Your task to perform on an android device: delete the emails in spam in the gmail app Image 0: 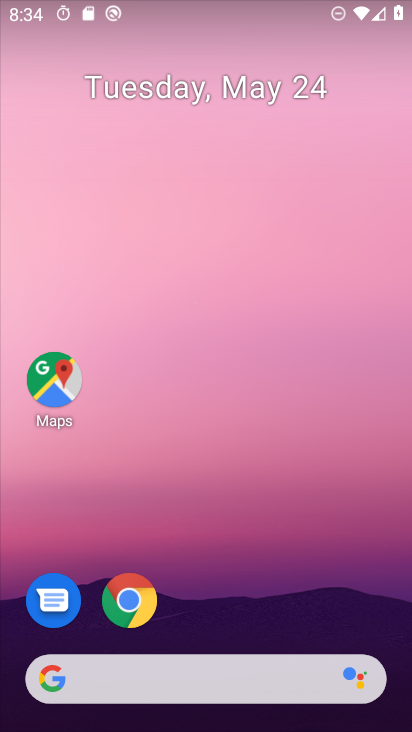
Step 0: drag from (308, 612) to (323, 74)
Your task to perform on an android device: delete the emails in spam in the gmail app Image 1: 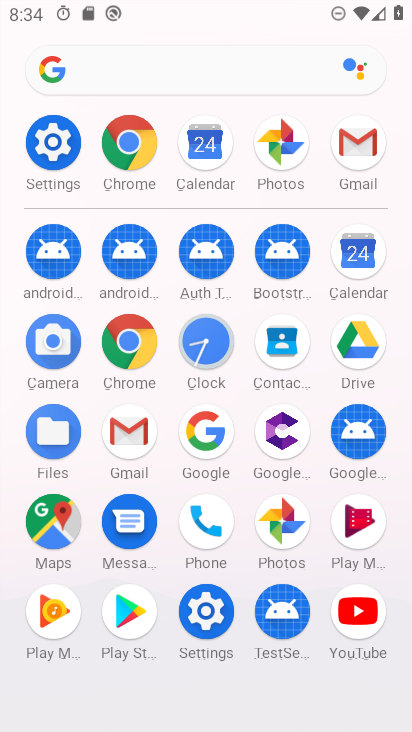
Step 1: click (365, 131)
Your task to perform on an android device: delete the emails in spam in the gmail app Image 2: 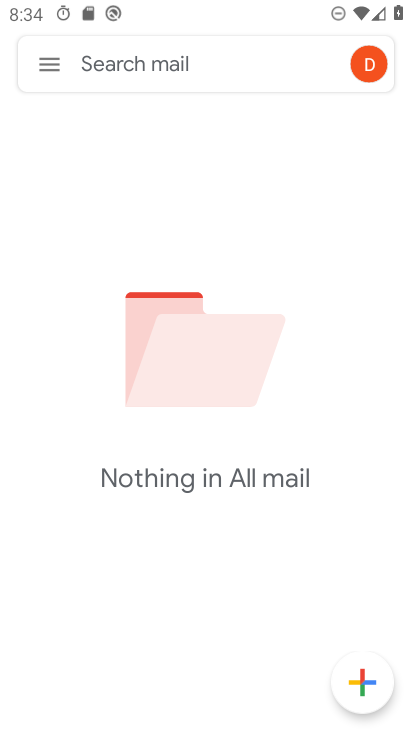
Step 2: click (41, 60)
Your task to perform on an android device: delete the emails in spam in the gmail app Image 3: 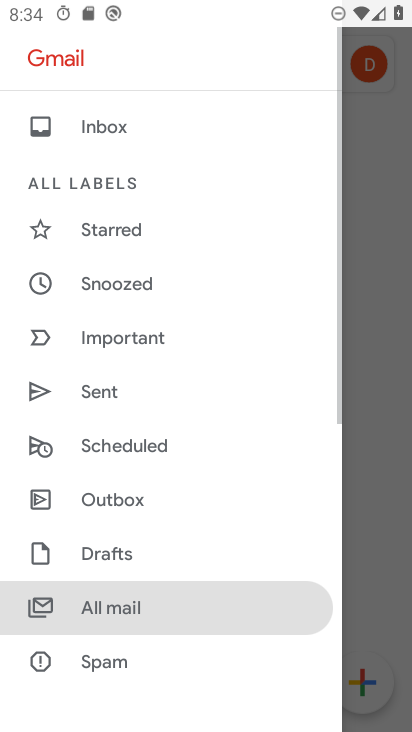
Step 3: click (107, 657)
Your task to perform on an android device: delete the emails in spam in the gmail app Image 4: 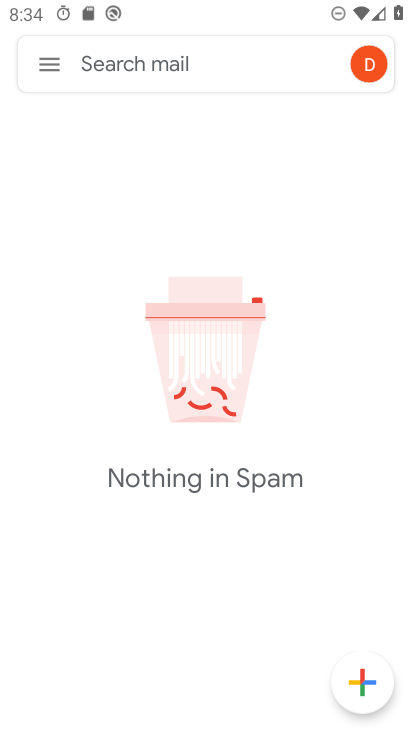
Step 4: task complete